Your task to perform on an android device: Turn off the flashlight Image 0: 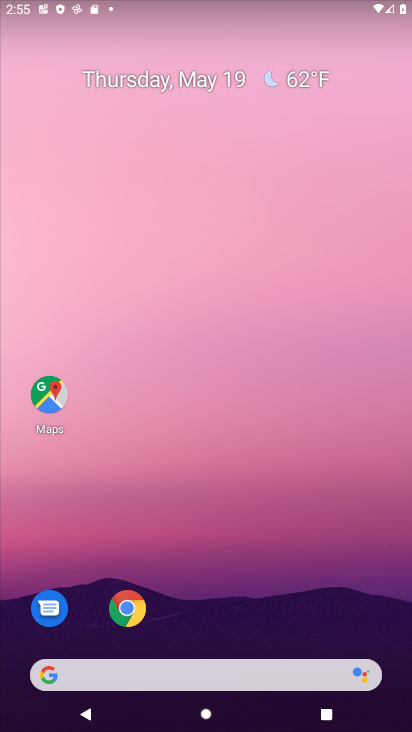
Step 0: drag from (215, 581) to (236, 111)
Your task to perform on an android device: Turn off the flashlight Image 1: 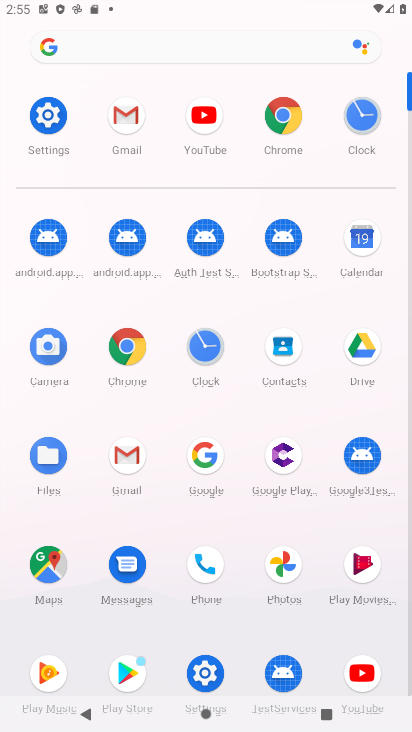
Step 1: click (58, 123)
Your task to perform on an android device: Turn off the flashlight Image 2: 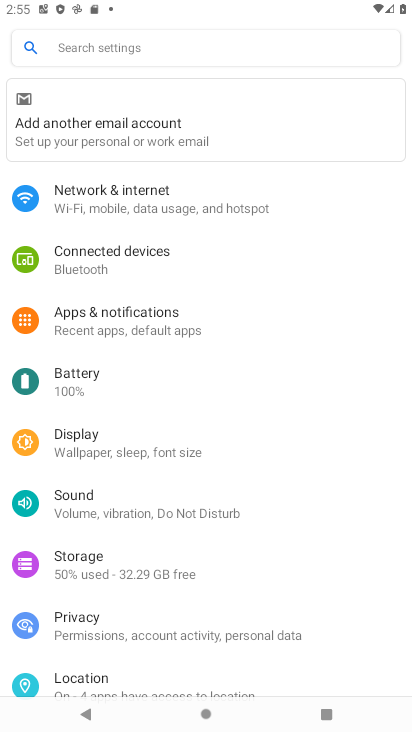
Step 2: click (158, 290)
Your task to perform on an android device: Turn off the flashlight Image 3: 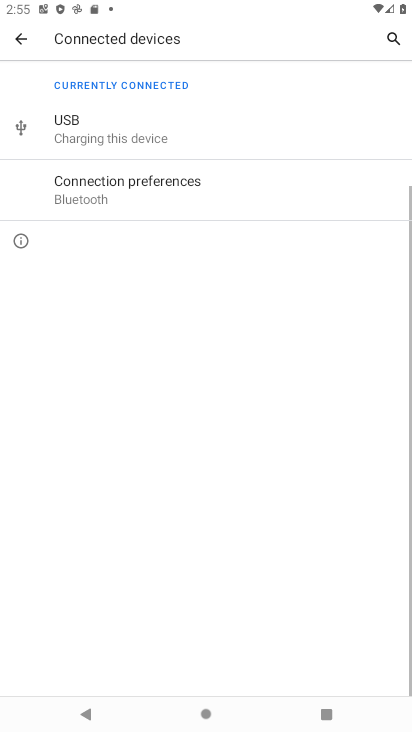
Step 3: task complete